Your task to perform on an android device: change alarm snooze length Image 0: 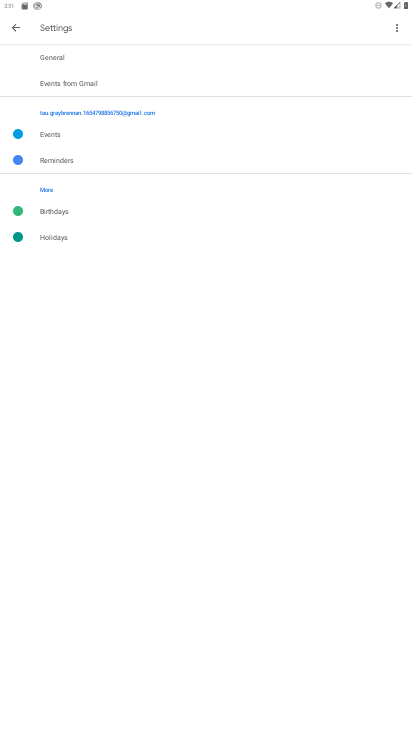
Step 0: press home button
Your task to perform on an android device: change alarm snooze length Image 1: 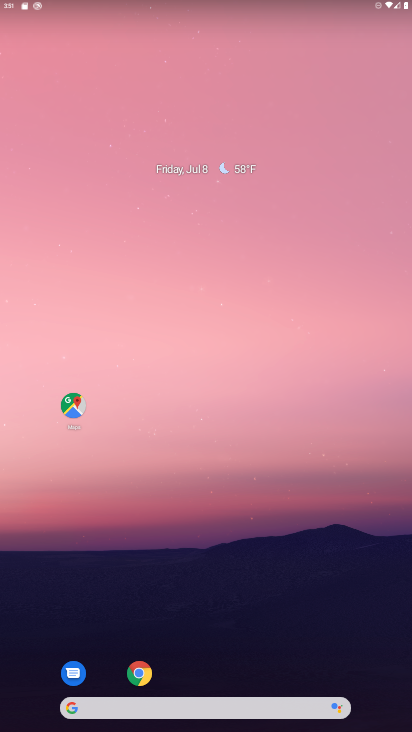
Step 1: drag from (174, 695) to (200, 368)
Your task to perform on an android device: change alarm snooze length Image 2: 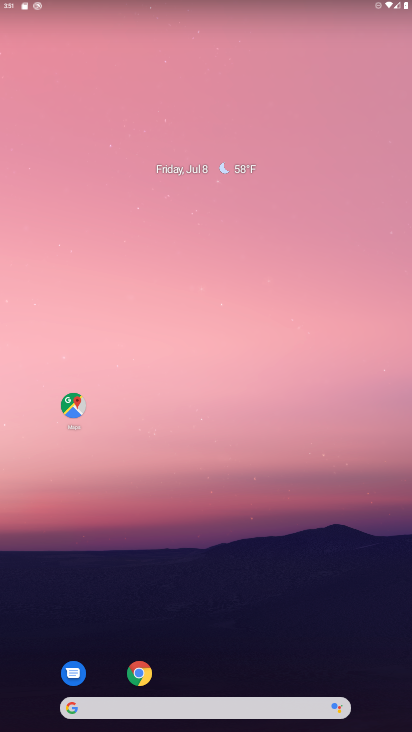
Step 2: drag from (235, 695) to (216, 295)
Your task to perform on an android device: change alarm snooze length Image 3: 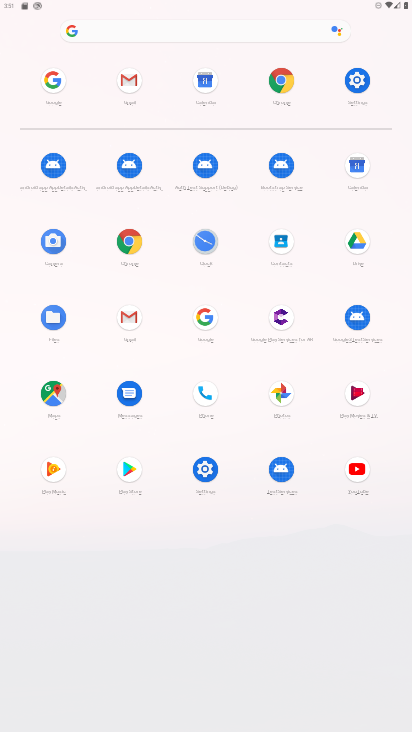
Step 3: click (206, 247)
Your task to perform on an android device: change alarm snooze length Image 4: 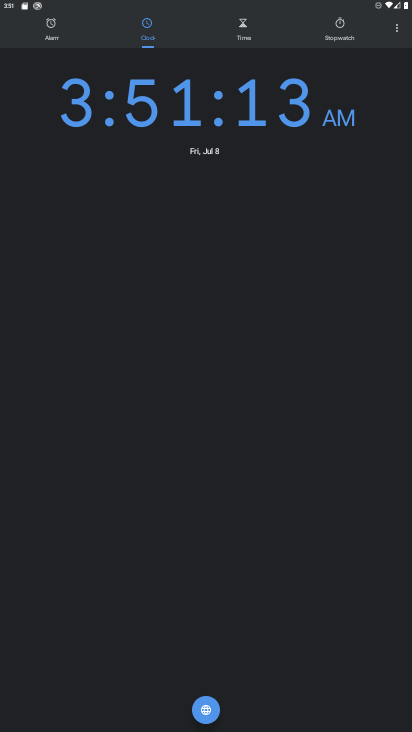
Step 4: click (397, 28)
Your task to perform on an android device: change alarm snooze length Image 5: 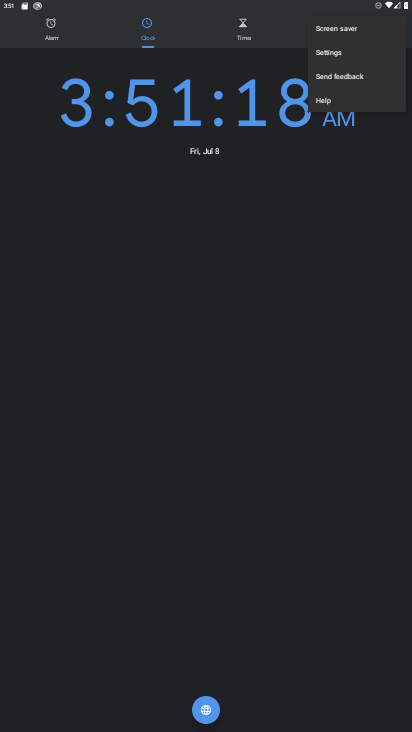
Step 5: click (334, 54)
Your task to perform on an android device: change alarm snooze length Image 6: 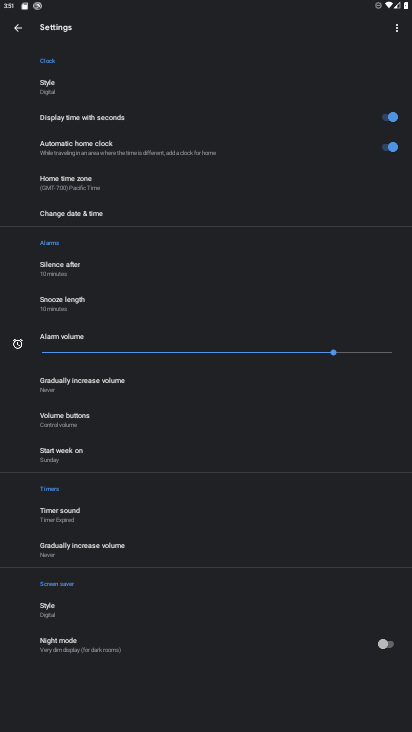
Step 6: click (69, 305)
Your task to perform on an android device: change alarm snooze length Image 7: 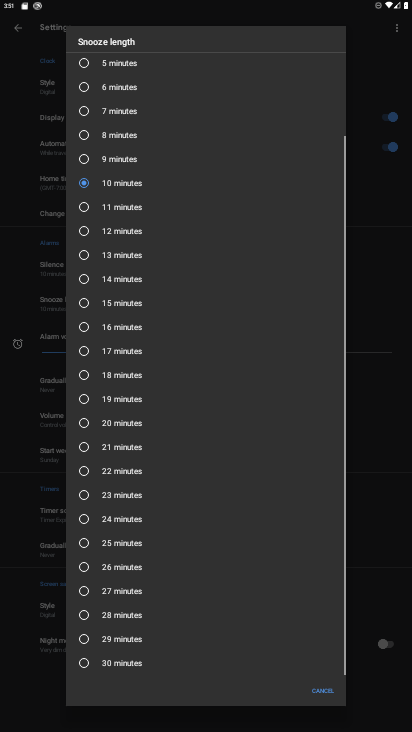
Step 7: click (120, 137)
Your task to perform on an android device: change alarm snooze length Image 8: 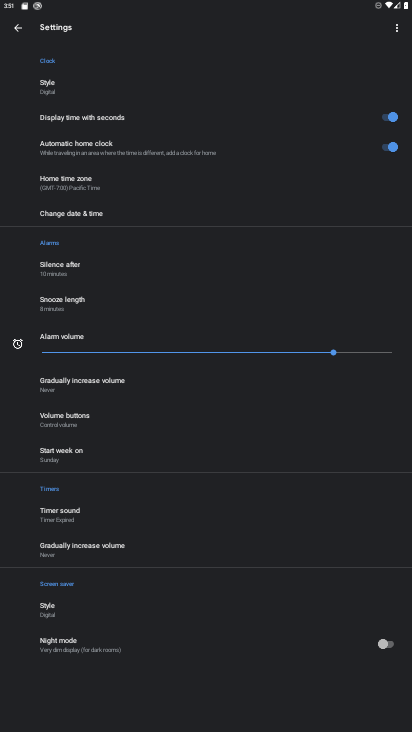
Step 8: task complete